Your task to perform on an android device: Open settings on Google Maps Image 0: 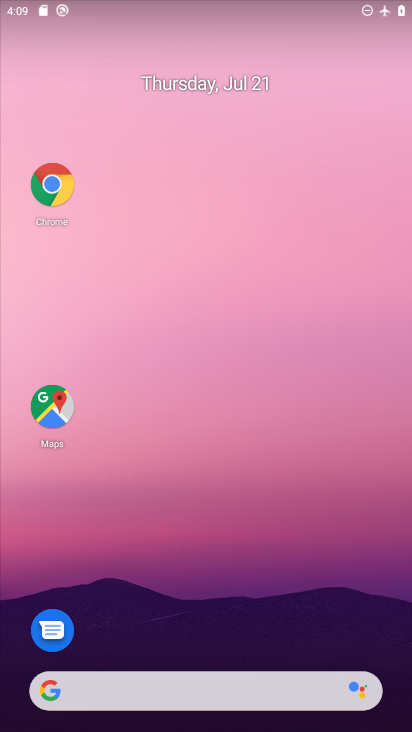
Step 0: drag from (229, 647) to (228, 55)
Your task to perform on an android device: Open settings on Google Maps Image 1: 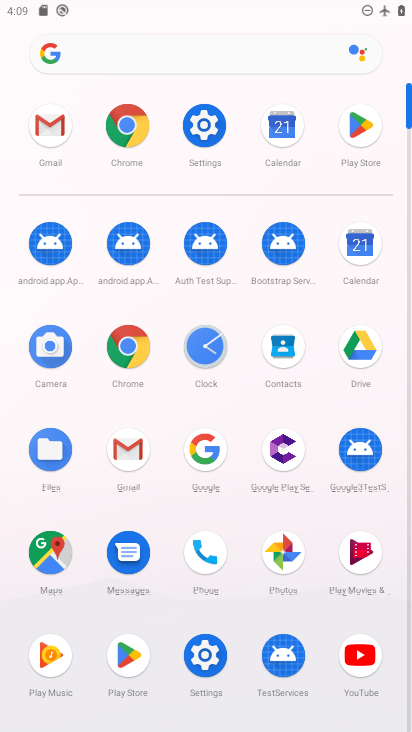
Step 1: click (46, 541)
Your task to perform on an android device: Open settings on Google Maps Image 2: 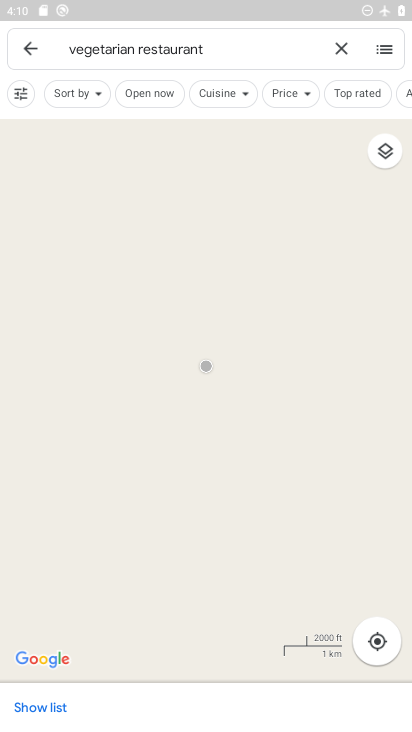
Step 2: click (16, 45)
Your task to perform on an android device: Open settings on Google Maps Image 3: 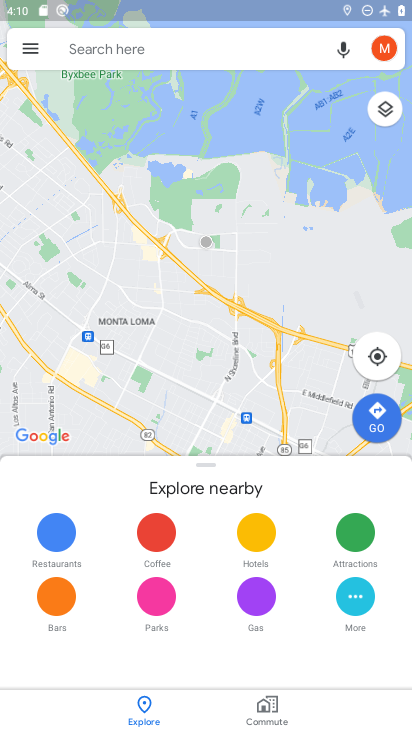
Step 3: click (24, 51)
Your task to perform on an android device: Open settings on Google Maps Image 4: 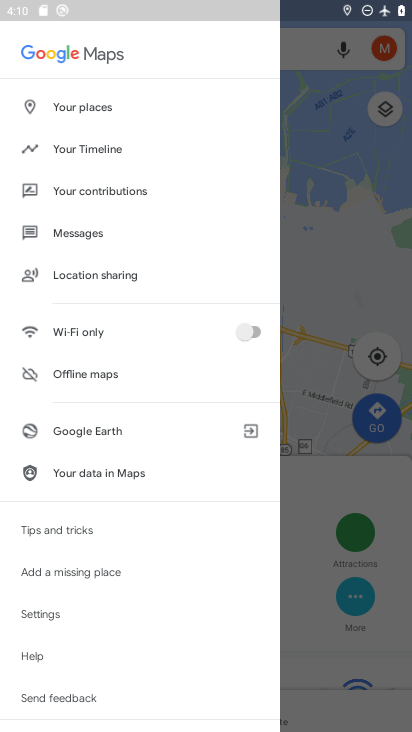
Step 4: drag from (118, 649) to (117, 247)
Your task to perform on an android device: Open settings on Google Maps Image 5: 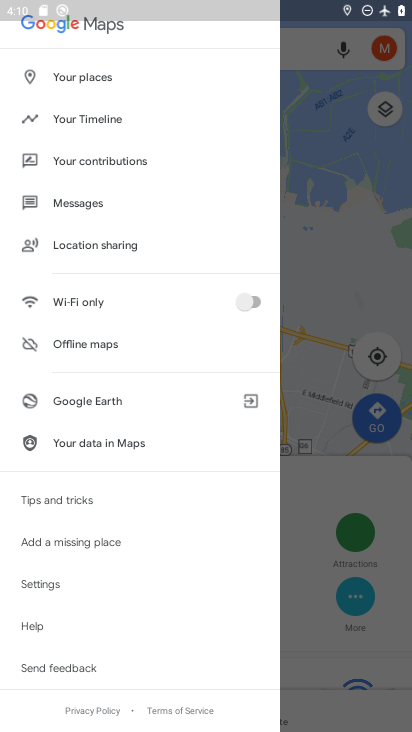
Step 5: click (35, 579)
Your task to perform on an android device: Open settings on Google Maps Image 6: 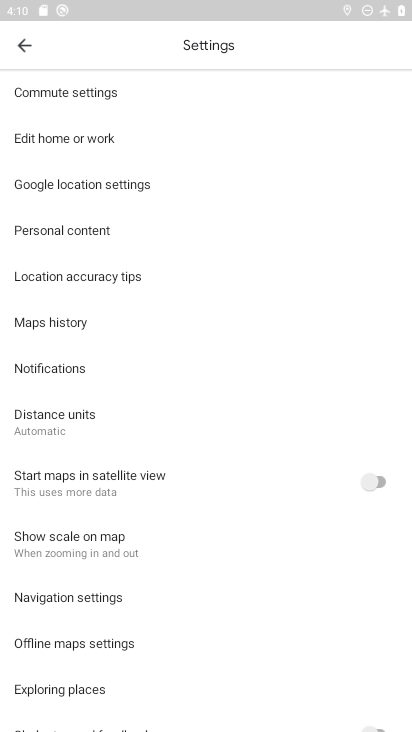
Step 6: task complete